Your task to perform on an android device: change text size in settings app Image 0: 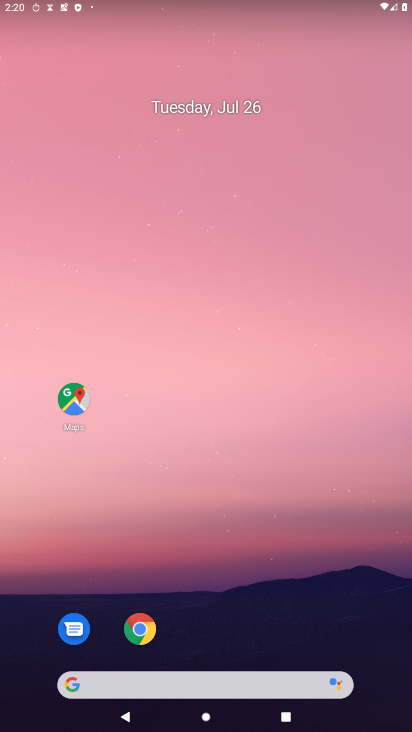
Step 0: drag from (242, 680) to (366, 69)
Your task to perform on an android device: change text size in settings app Image 1: 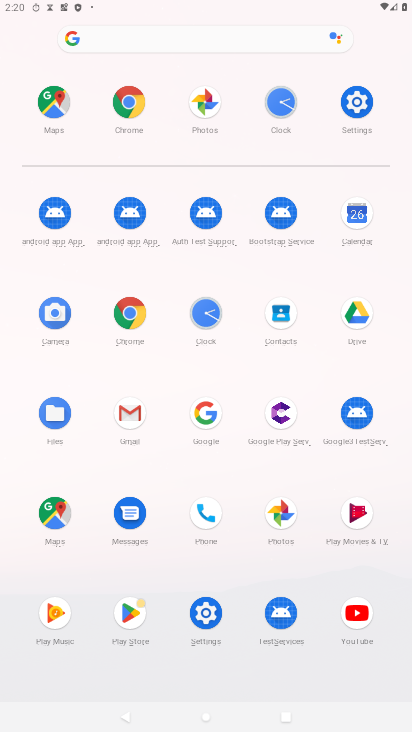
Step 1: click (350, 88)
Your task to perform on an android device: change text size in settings app Image 2: 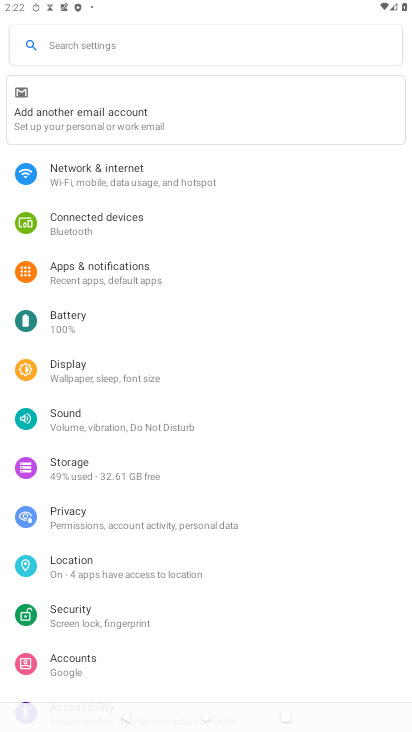
Step 2: drag from (231, 650) to (349, 64)
Your task to perform on an android device: change text size in settings app Image 3: 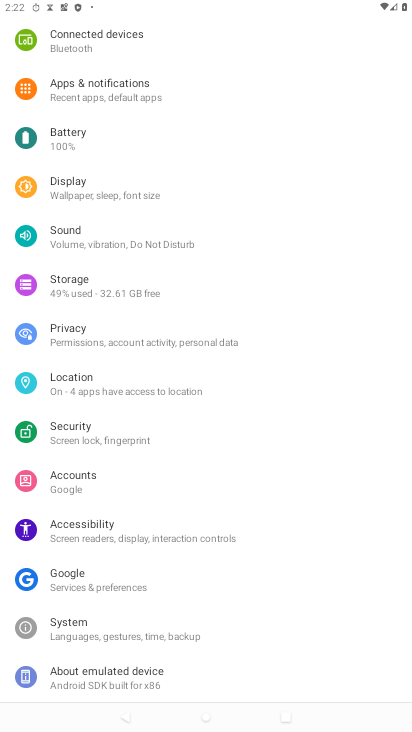
Step 3: click (151, 537)
Your task to perform on an android device: change text size in settings app Image 4: 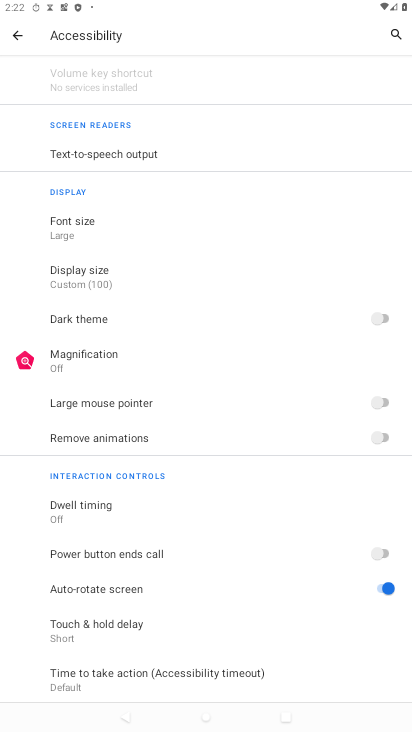
Step 4: click (91, 222)
Your task to perform on an android device: change text size in settings app Image 5: 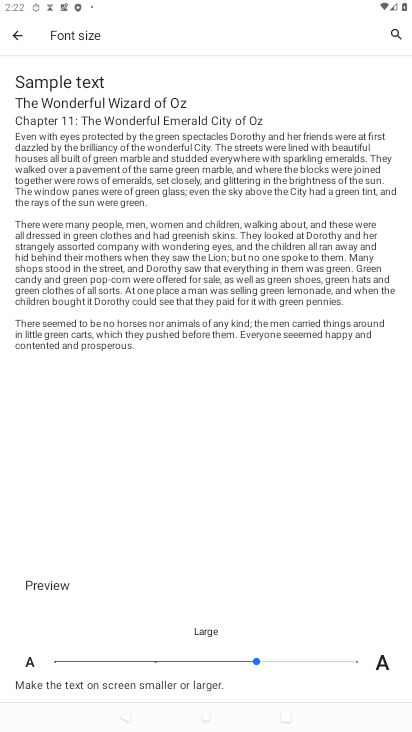
Step 5: click (353, 657)
Your task to perform on an android device: change text size in settings app Image 6: 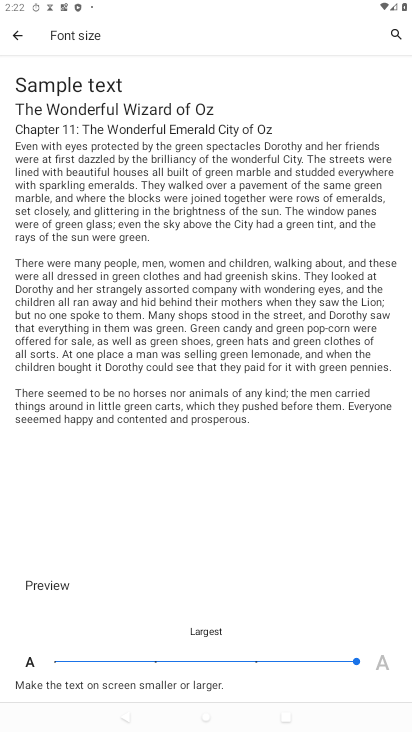
Step 6: task complete